Your task to perform on an android device: Open wifi settings Image 0: 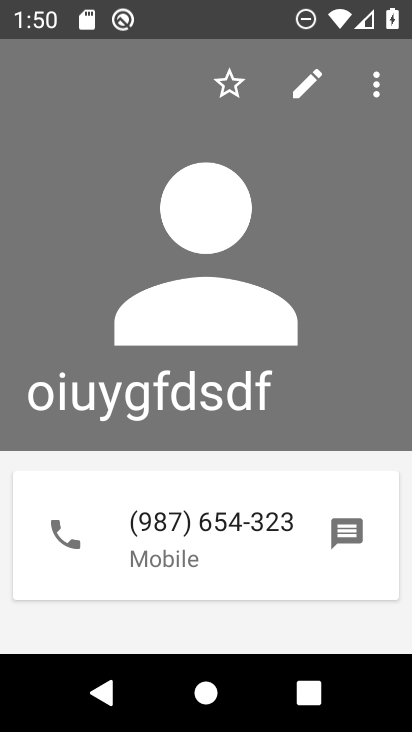
Step 0: drag from (163, 27) to (131, 585)
Your task to perform on an android device: Open wifi settings Image 1: 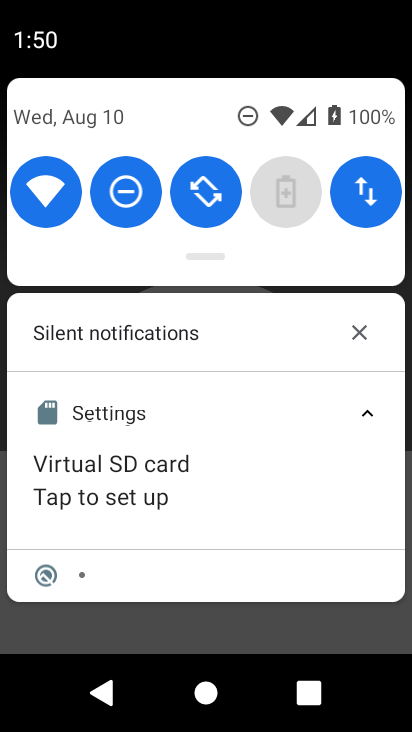
Step 1: click (62, 201)
Your task to perform on an android device: Open wifi settings Image 2: 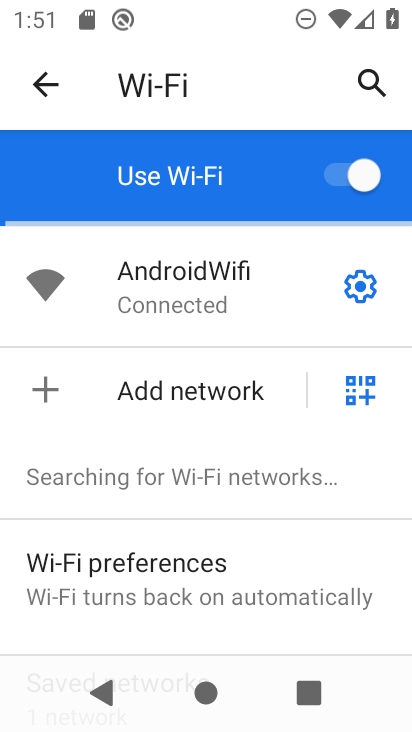
Step 2: task complete